Your task to perform on an android device: What's the weather? Image 0: 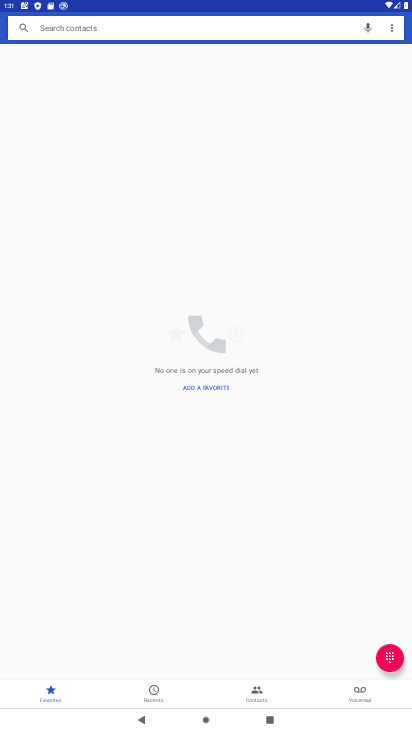
Step 0: press home button
Your task to perform on an android device: What's the weather? Image 1: 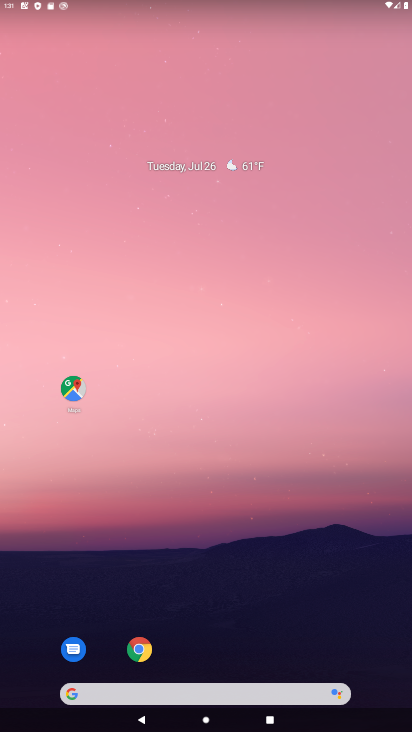
Step 1: click (186, 693)
Your task to perform on an android device: What's the weather? Image 2: 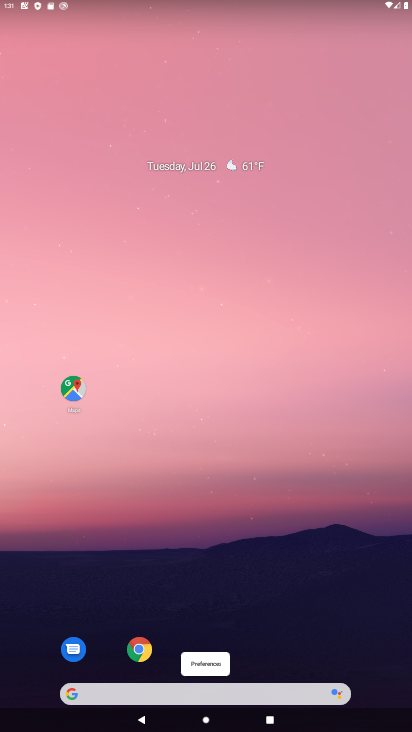
Step 2: click (195, 681)
Your task to perform on an android device: What's the weather? Image 3: 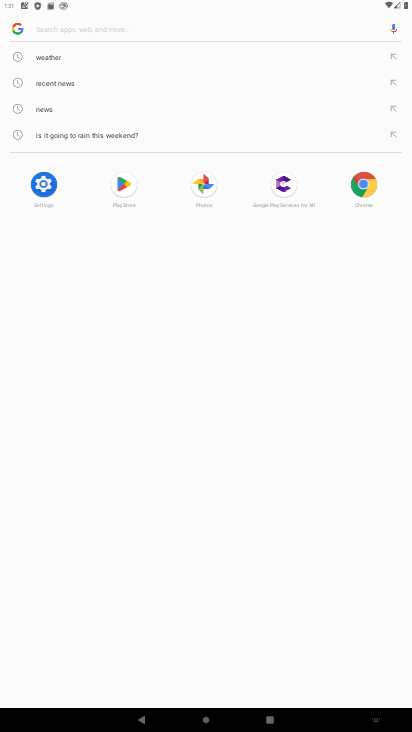
Step 3: click (69, 57)
Your task to perform on an android device: What's the weather? Image 4: 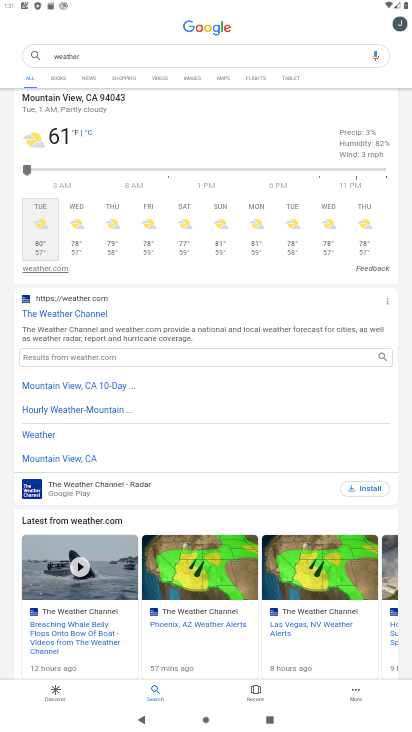
Step 4: task complete